Your task to perform on an android device: Go to battery settings Image 0: 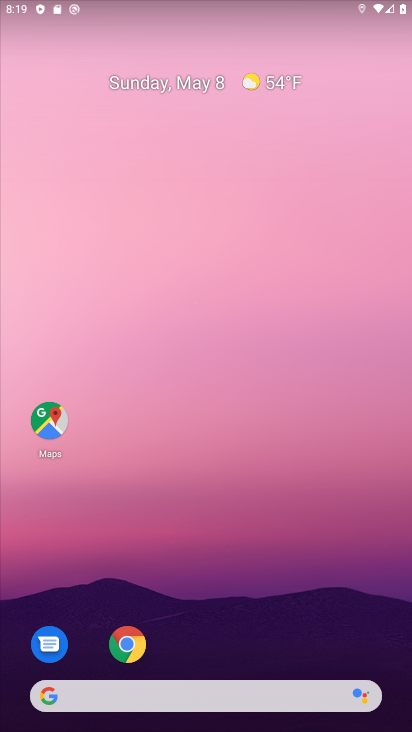
Step 0: drag from (195, 656) to (218, 110)
Your task to perform on an android device: Go to battery settings Image 1: 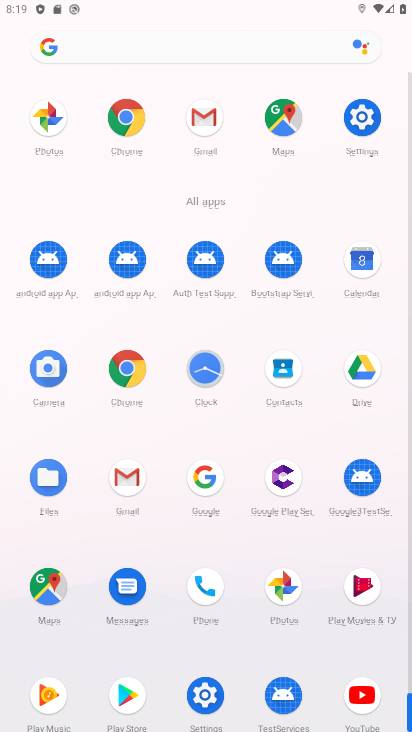
Step 1: click (361, 123)
Your task to perform on an android device: Go to battery settings Image 2: 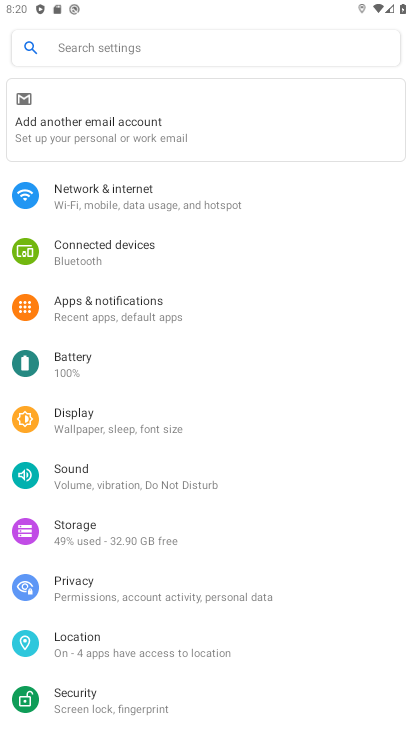
Step 2: click (118, 367)
Your task to perform on an android device: Go to battery settings Image 3: 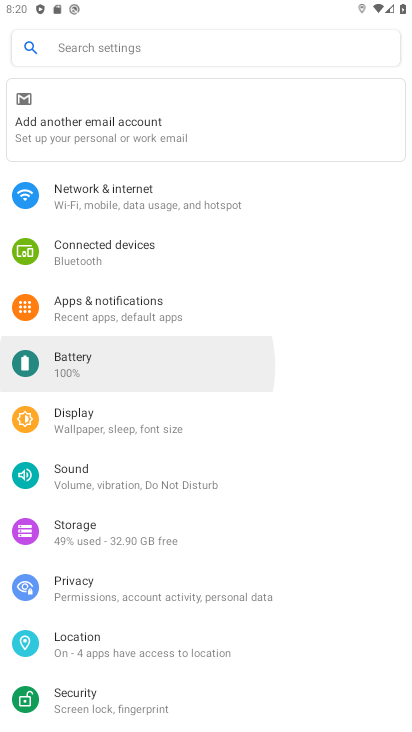
Step 3: click (118, 367)
Your task to perform on an android device: Go to battery settings Image 4: 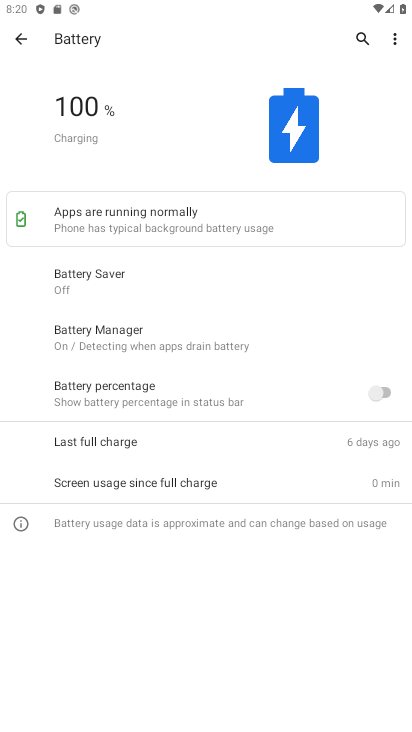
Step 4: task complete